Your task to perform on an android device: toggle translation in the chrome app Image 0: 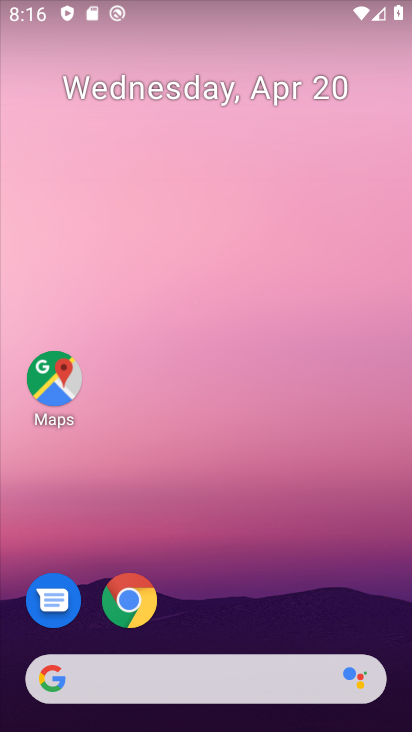
Step 0: click (137, 611)
Your task to perform on an android device: toggle translation in the chrome app Image 1: 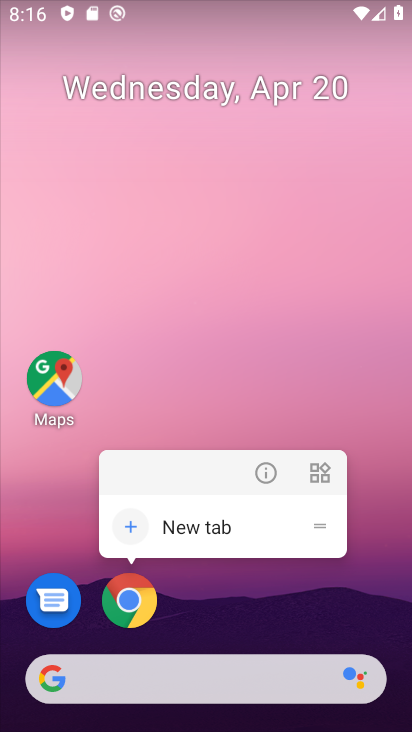
Step 1: click (137, 611)
Your task to perform on an android device: toggle translation in the chrome app Image 2: 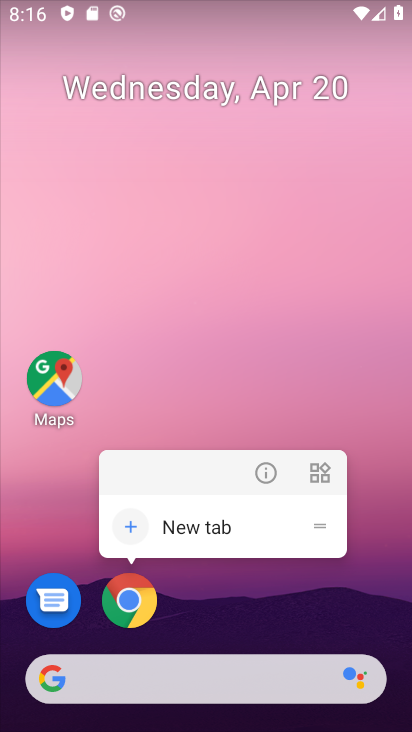
Step 2: click (133, 606)
Your task to perform on an android device: toggle translation in the chrome app Image 3: 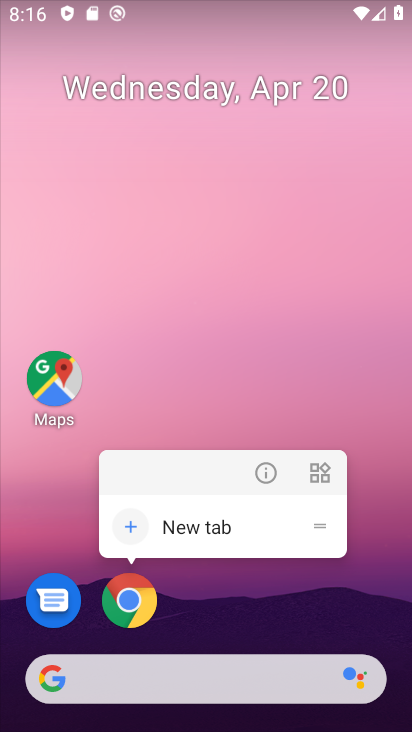
Step 3: click (124, 596)
Your task to perform on an android device: toggle translation in the chrome app Image 4: 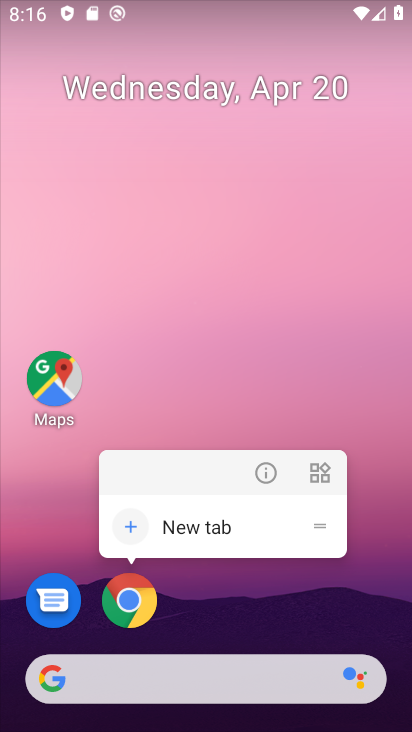
Step 4: click (124, 584)
Your task to perform on an android device: toggle translation in the chrome app Image 5: 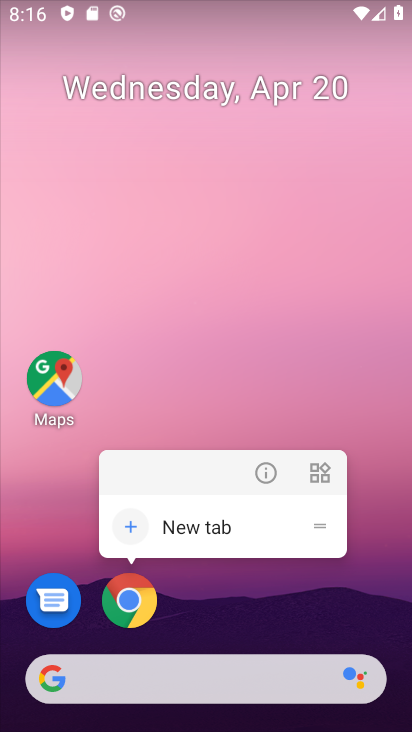
Step 5: click (118, 603)
Your task to perform on an android device: toggle translation in the chrome app Image 6: 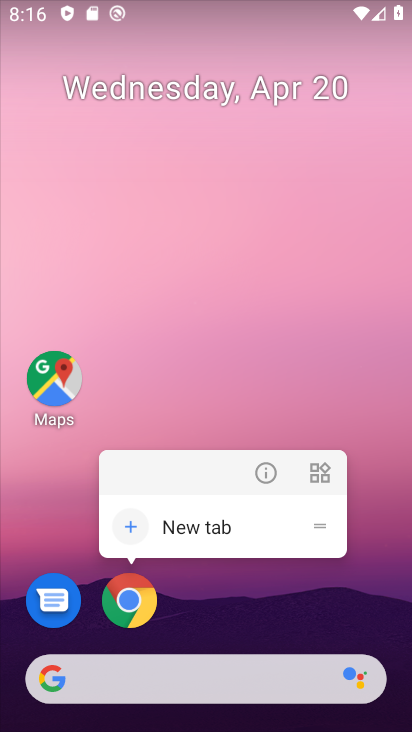
Step 6: click (125, 610)
Your task to perform on an android device: toggle translation in the chrome app Image 7: 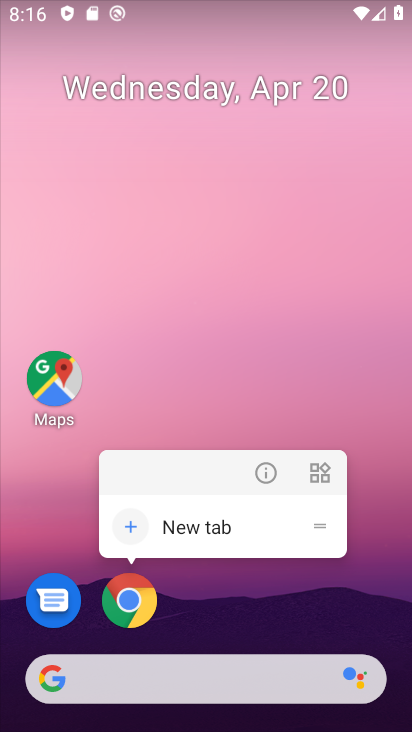
Step 7: click (141, 600)
Your task to perform on an android device: toggle translation in the chrome app Image 8: 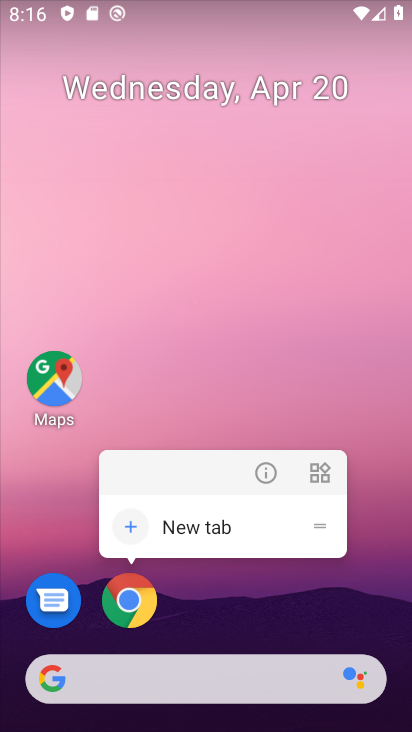
Step 8: click (132, 605)
Your task to perform on an android device: toggle translation in the chrome app Image 9: 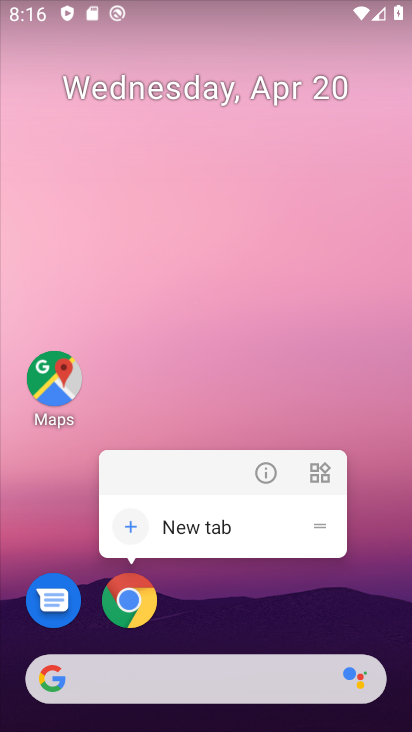
Step 9: click (149, 609)
Your task to perform on an android device: toggle translation in the chrome app Image 10: 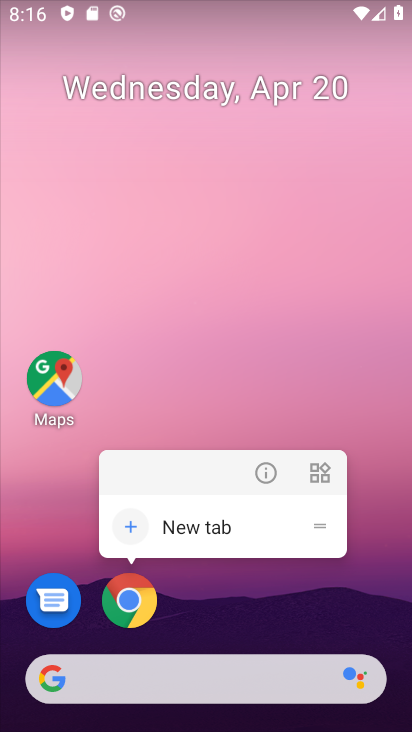
Step 10: click (109, 596)
Your task to perform on an android device: toggle translation in the chrome app Image 11: 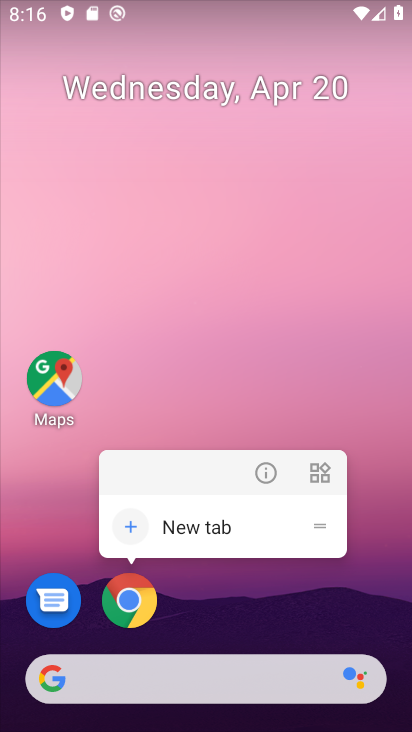
Step 11: click (127, 592)
Your task to perform on an android device: toggle translation in the chrome app Image 12: 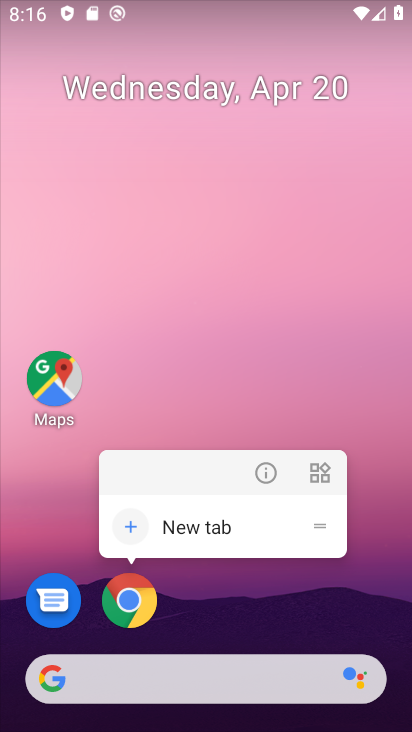
Step 12: click (135, 579)
Your task to perform on an android device: toggle translation in the chrome app Image 13: 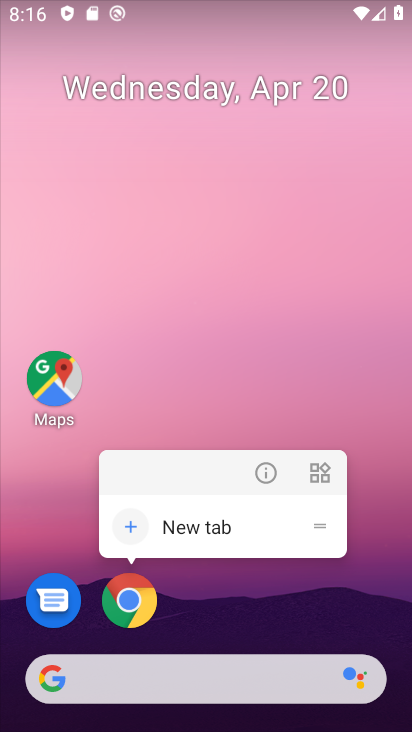
Step 13: click (123, 609)
Your task to perform on an android device: toggle translation in the chrome app Image 14: 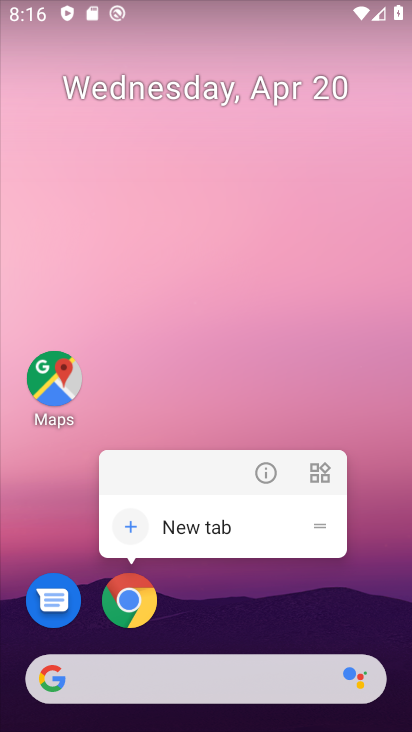
Step 14: click (123, 609)
Your task to perform on an android device: toggle translation in the chrome app Image 15: 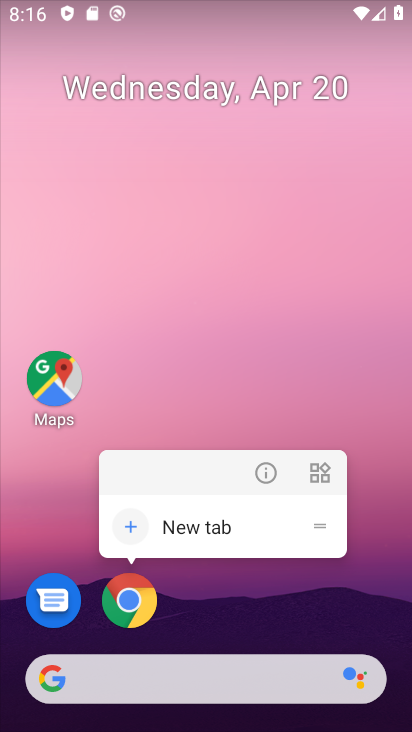
Step 15: click (133, 600)
Your task to perform on an android device: toggle translation in the chrome app Image 16: 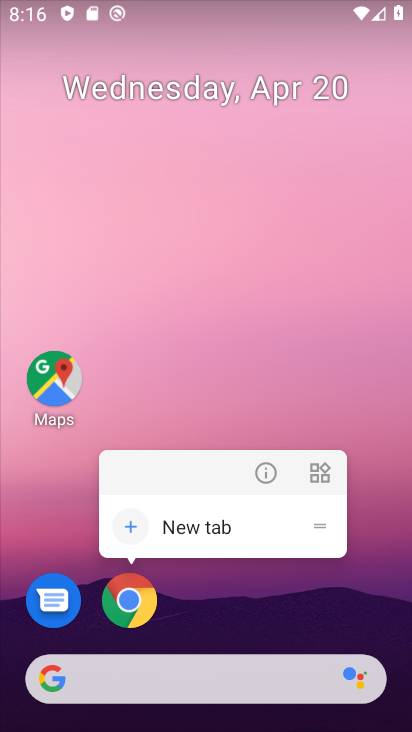
Step 16: click (134, 604)
Your task to perform on an android device: toggle translation in the chrome app Image 17: 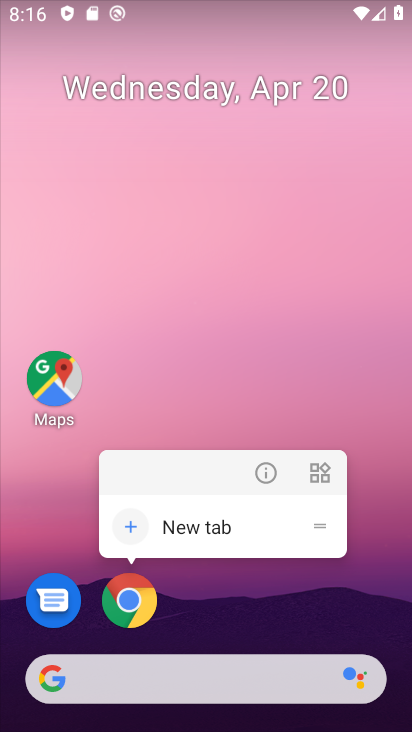
Step 17: click (143, 617)
Your task to perform on an android device: toggle translation in the chrome app Image 18: 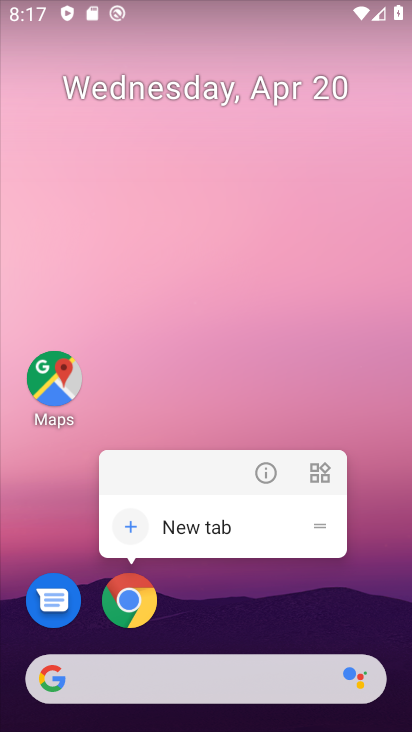
Step 18: click (122, 602)
Your task to perform on an android device: toggle translation in the chrome app Image 19: 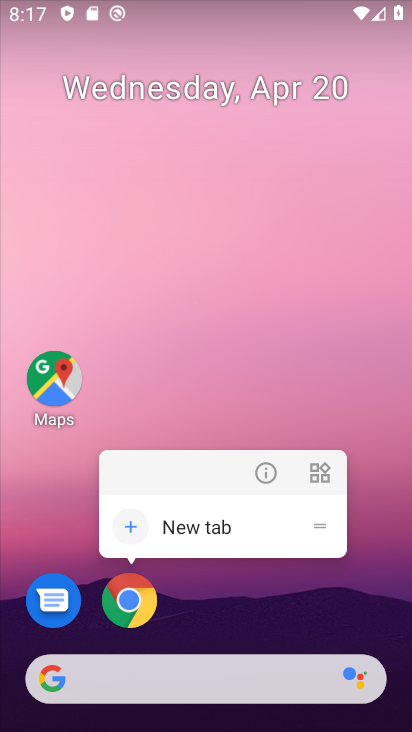
Step 19: click (129, 607)
Your task to perform on an android device: toggle translation in the chrome app Image 20: 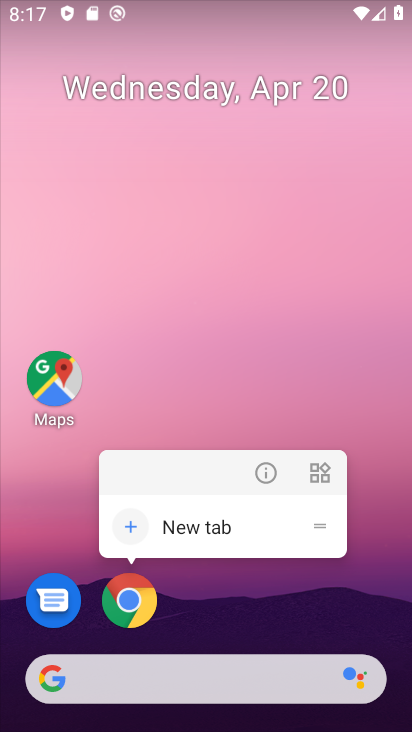
Step 20: click (136, 607)
Your task to perform on an android device: toggle translation in the chrome app Image 21: 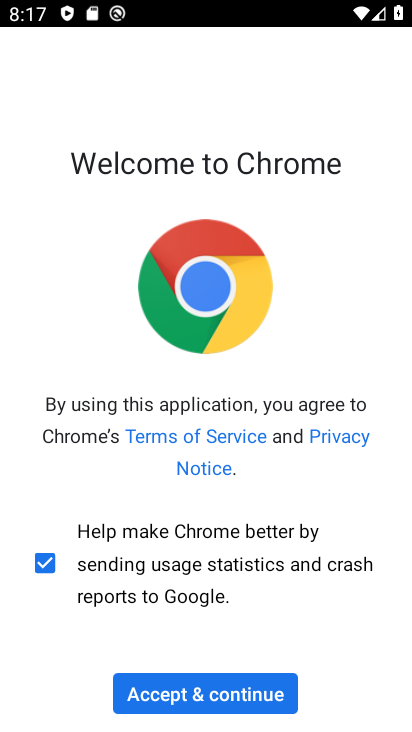
Step 21: click (207, 90)
Your task to perform on an android device: toggle translation in the chrome app Image 22: 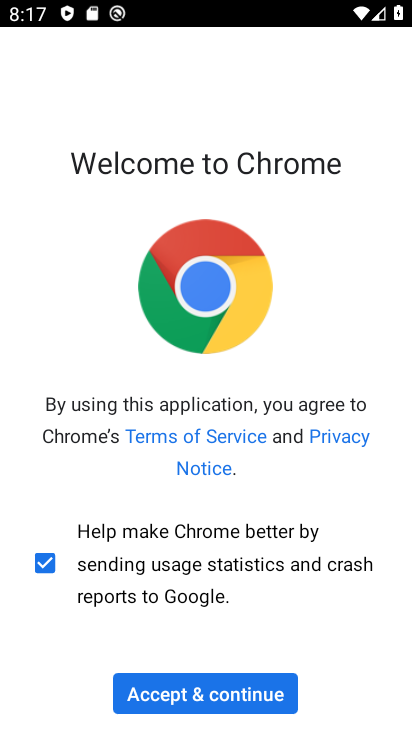
Step 22: click (180, 696)
Your task to perform on an android device: toggle translation in the chrome app Image 23: 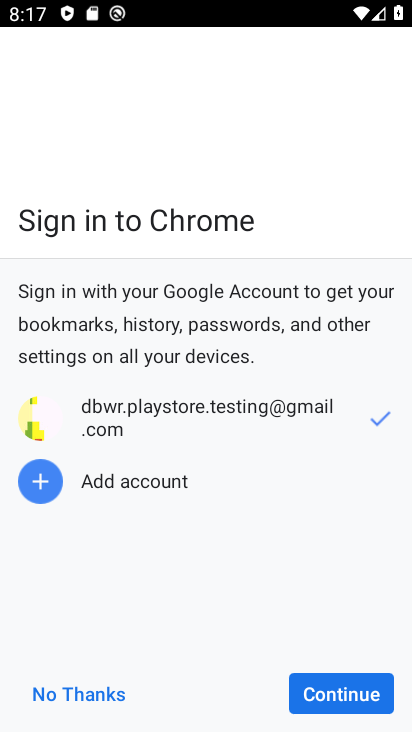
Step 23: click (352, 697)
Your task to perform on an android device: toggle translation in the chrome app Image 24: 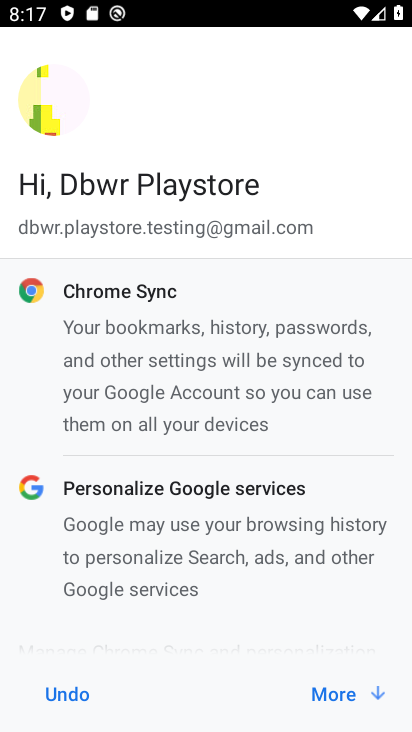
Step 24: click (352, 697)
Your task to perform on an android device: toggle translation in the chrome app Image 25: 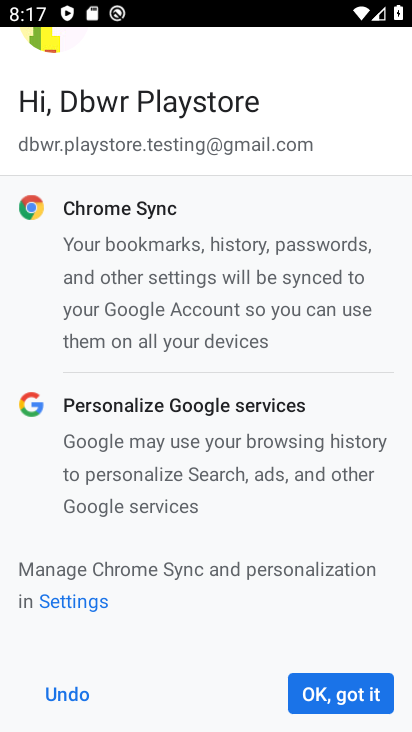
Step 25: click (352, 697)
Your task to perform on an android device: toggle translation in the chrome app Image 26: 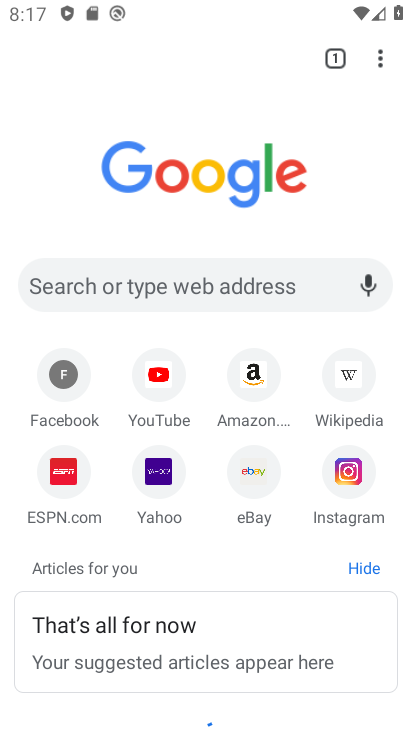
Step 26: drag from (388, 73) to (300, 466)
Your task to perform on an android device: toggle translation in the chrome app Image 27: 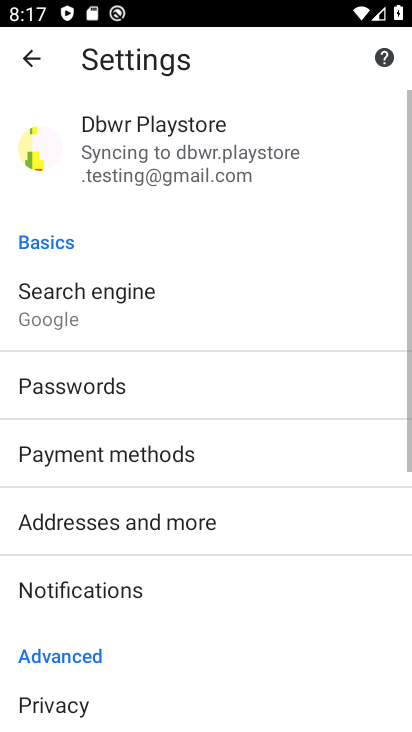
Step 27: drag from (227, 684) to (325, 218)
Your task to perform on an android device: toggle translation in the chrome app Image 28: 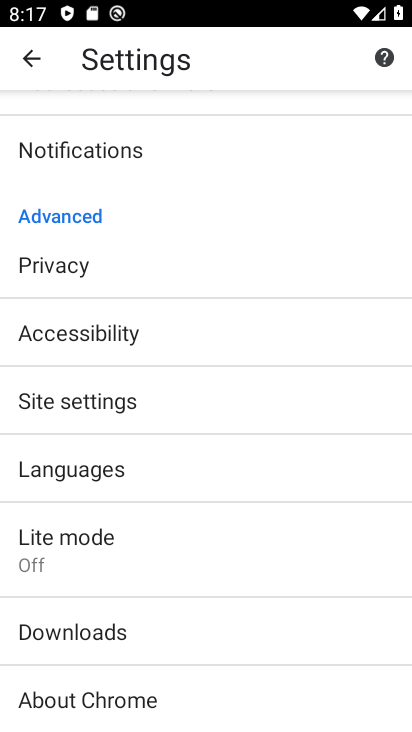
Step 28: click (133, 475)
Your task to perform on an android device: toggle translation in the chrome app Image 29: 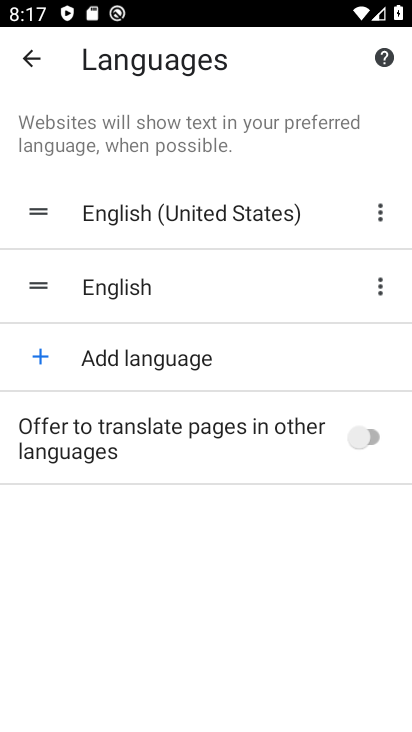
Step 29: click (385, 436)
Your task to perform on an android device: toggle translation in the chrome app Image 30: 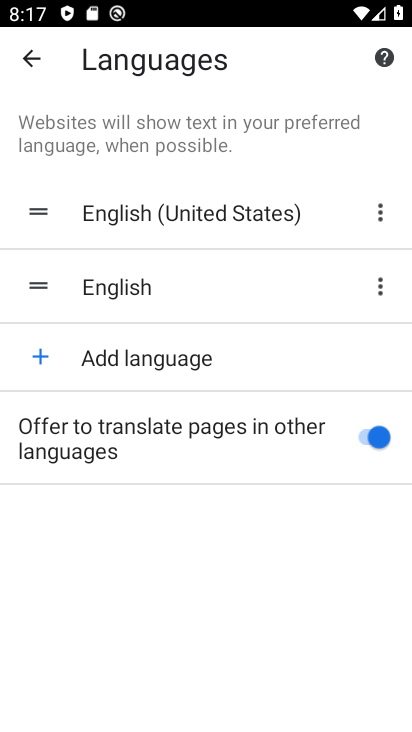
Step 30: task complete